Your task to perform on an android device: turn vacation reply on in the gmail app Image 0: 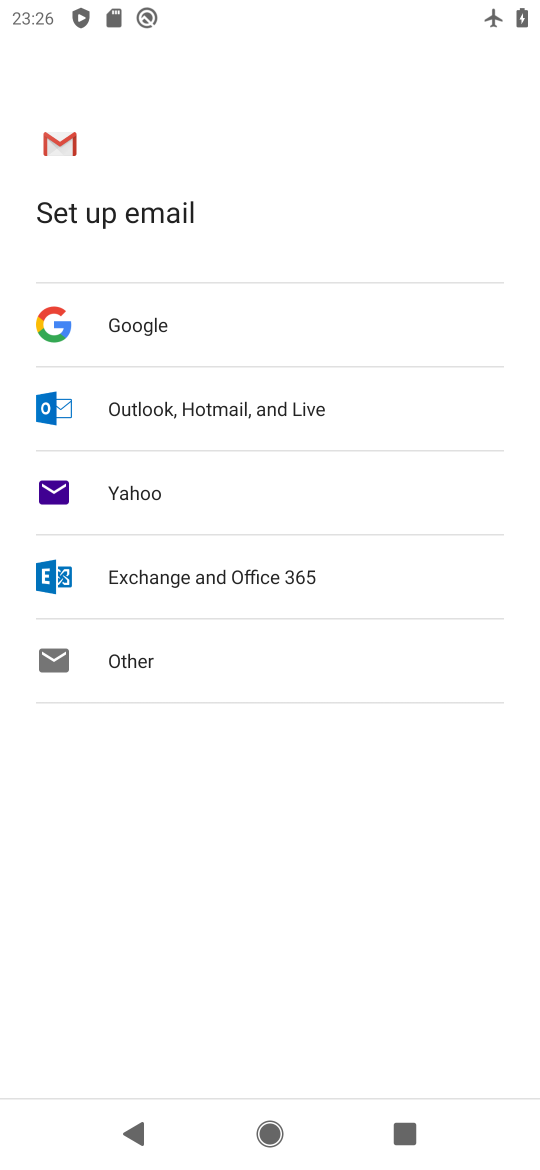
Step 0: press home button
Your task to perform on an android device: turn vacation reply on in the gmail app Image 1: 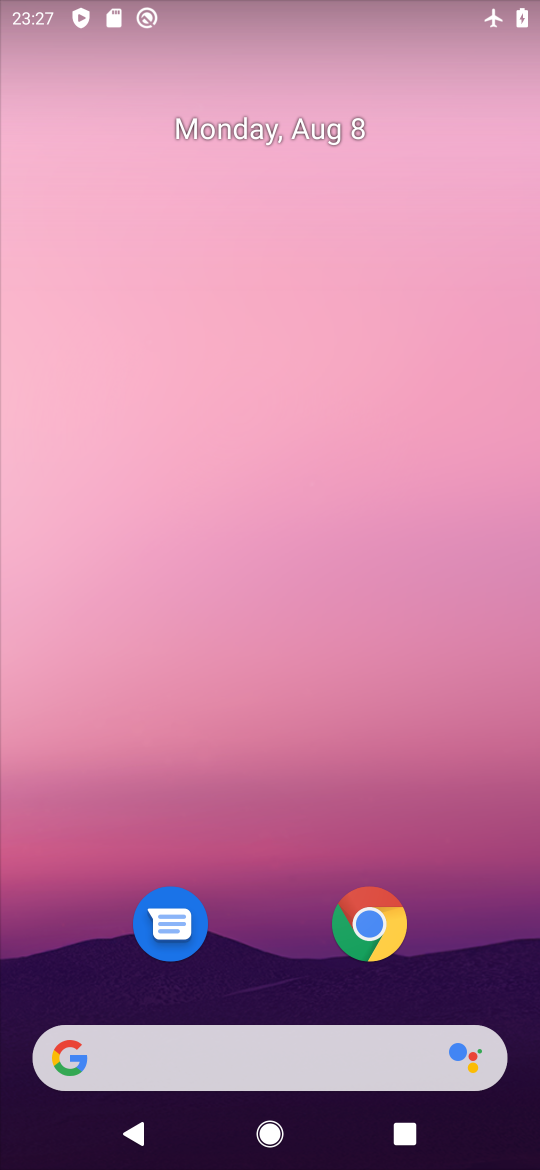
Step 1: drag from (247, 975) to (163, 1)
Your task to perform on an android device: turn vacation reply on in the gmail app Image 2: 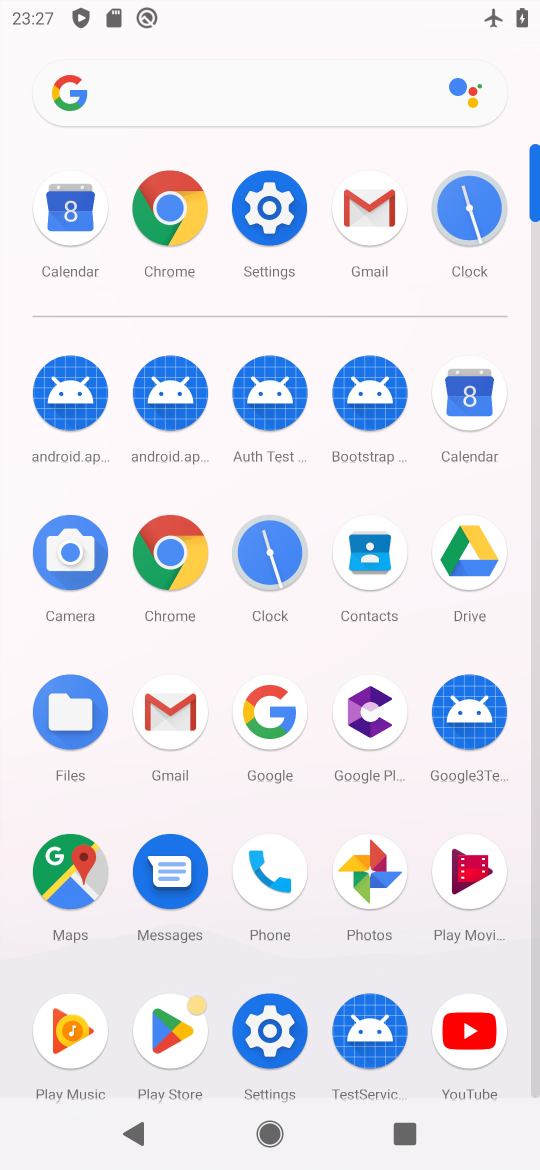
Step 2: click (191, 717)
Your task to perform on an android device: turn vacation reply on in the gmail app Image 3: 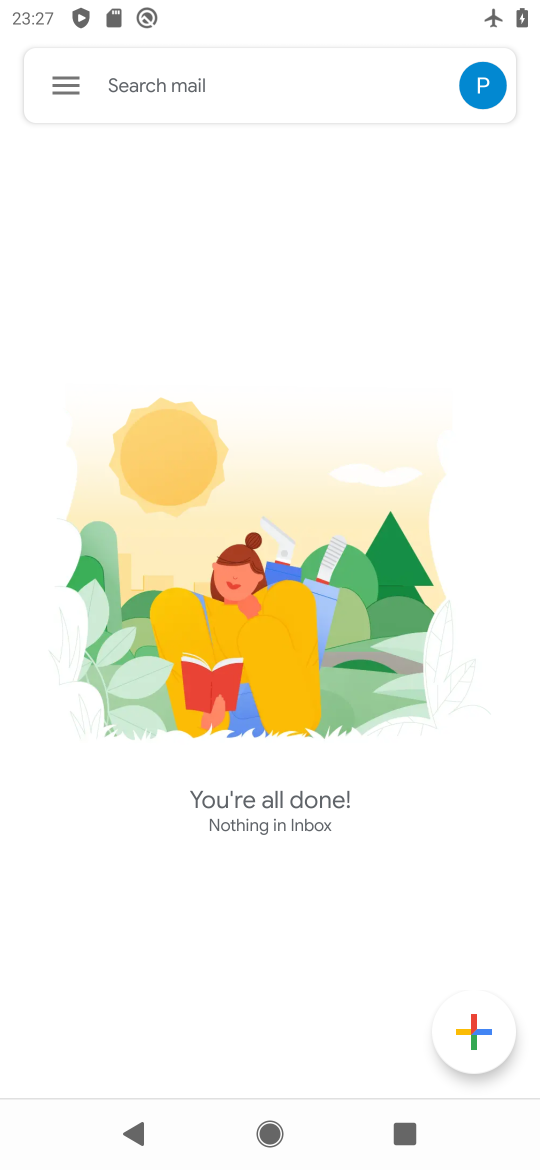
Step 3: click (56, 112)
Your task to perform on an android device: turn vacation reply on in the gmail app Image 4: 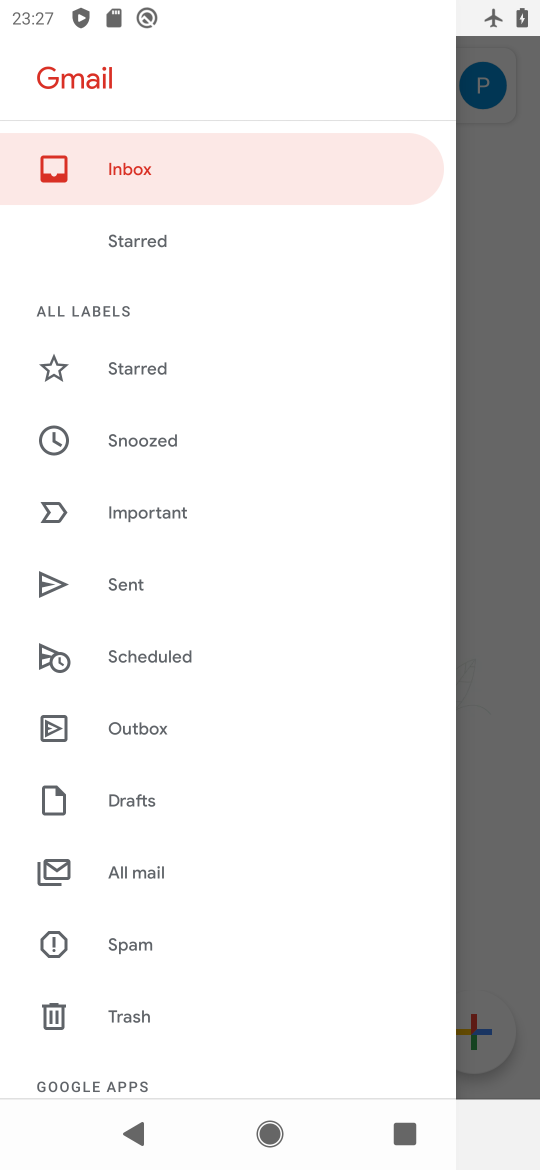
Step 4: drag from (133, 954) to (112, 162)
Your task to perform on an android device: turn vacation reply on in the gmail app Image 5: 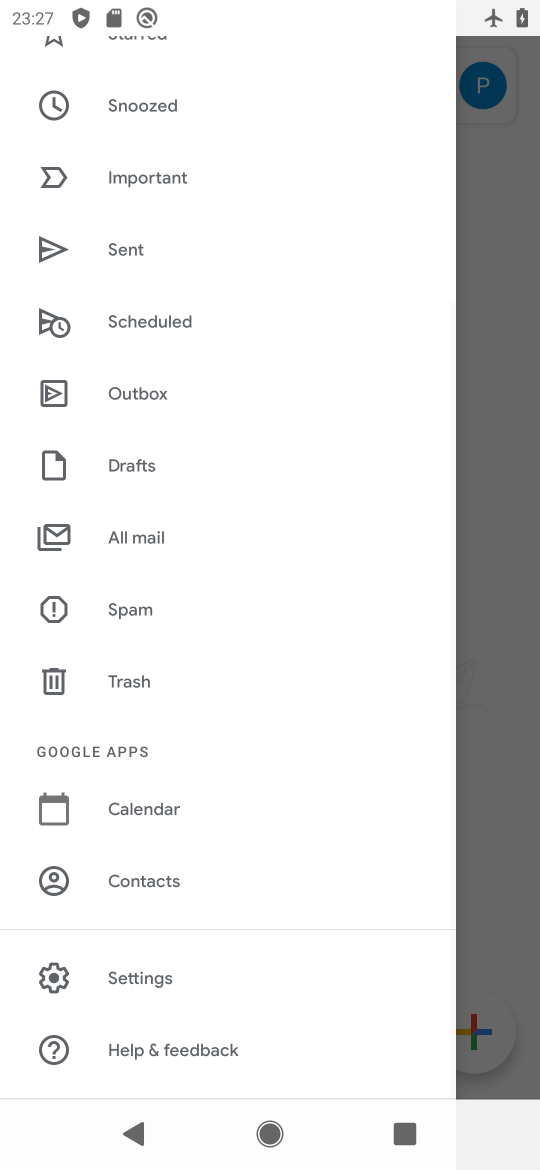
Step 5: click (124, 950)
Your task to perform on an android device: turn vacation reply on in the gmail app Image 6: 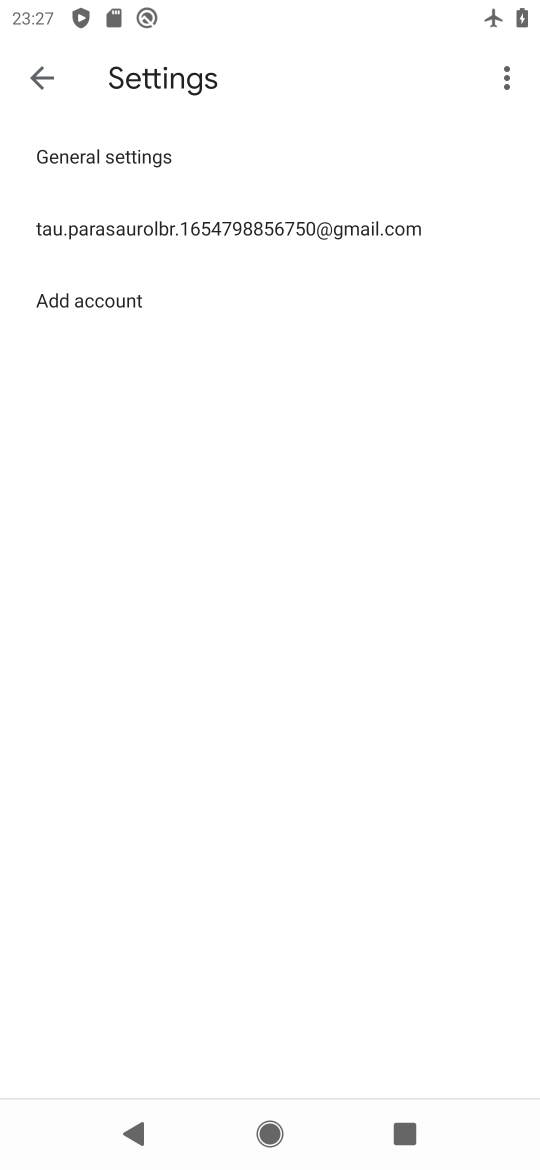
Step 6: click (98, 240)
Your task to perform on an android device: turn vacation reply on in the gmail app Image 7: 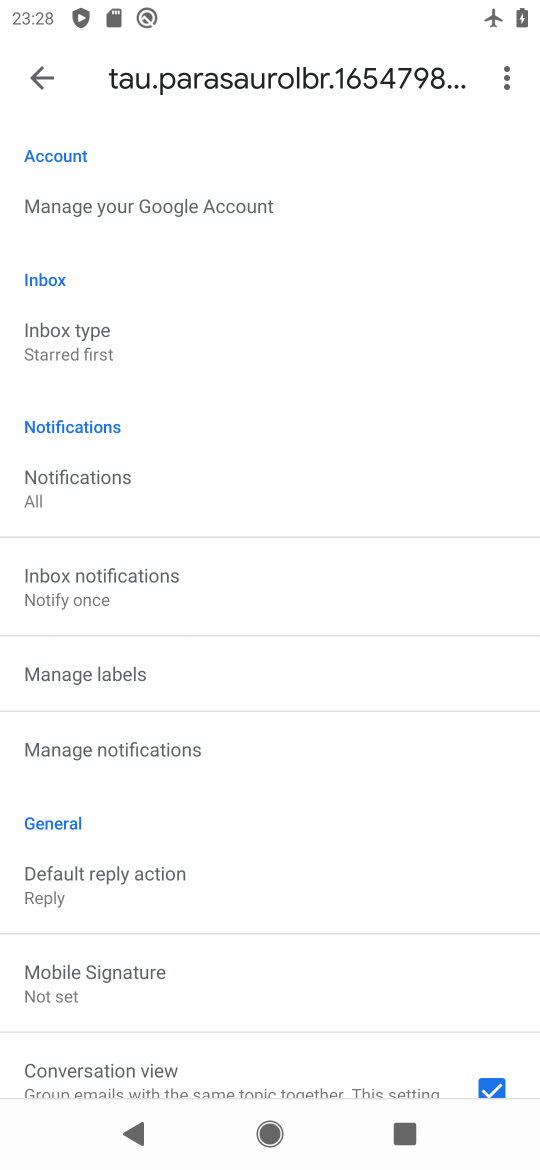
Step 7: click (98, 240)
Your task to perform on an android device: turn vacation reply on in the gmail app Image 8: 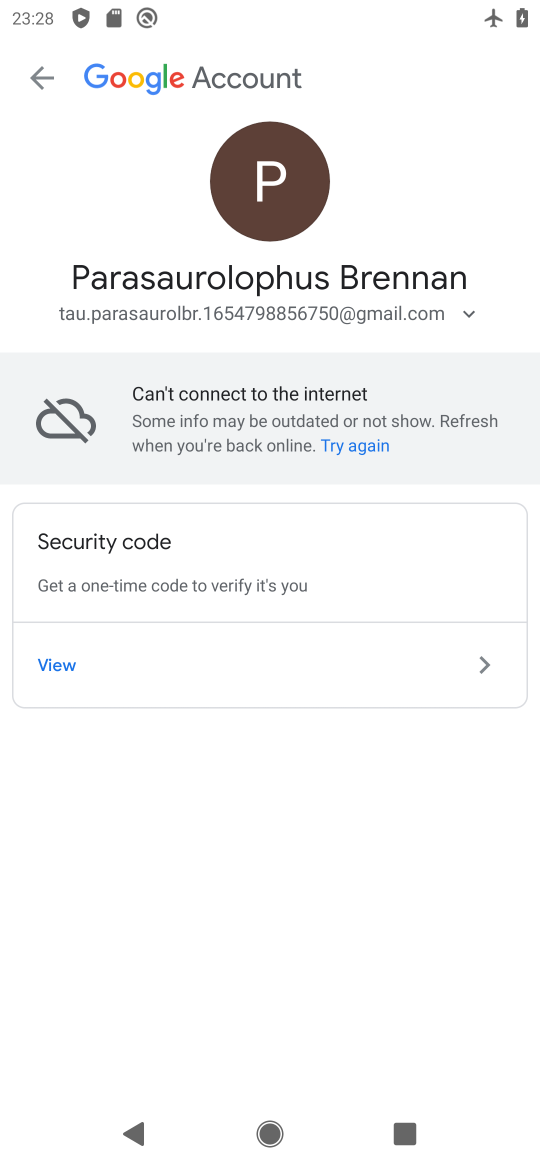
Step 8: click (35, 68)
Your task to perform on an android device: turn vacation reply on in the gmail app Image 9: 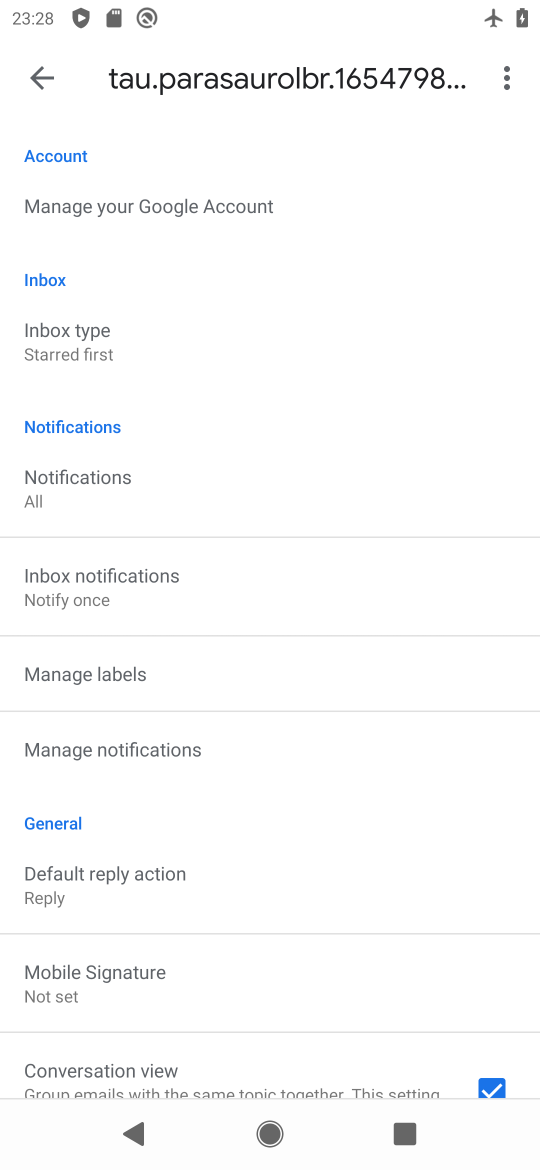
Step 9: drag from (155, 905) to (96, 544)
Your task to perform on an android device: turn vacation reply on in the gmail app Image 10: 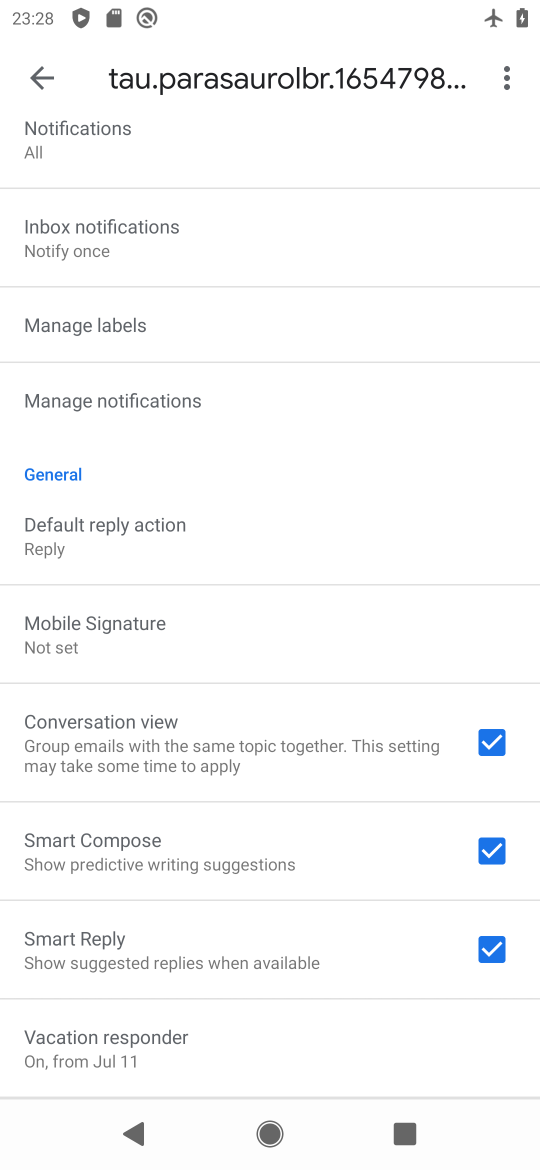
Step 10: click (211, 1031)
Your task to perform on an android device: turn vacation reply on in the gmail app Image 11: 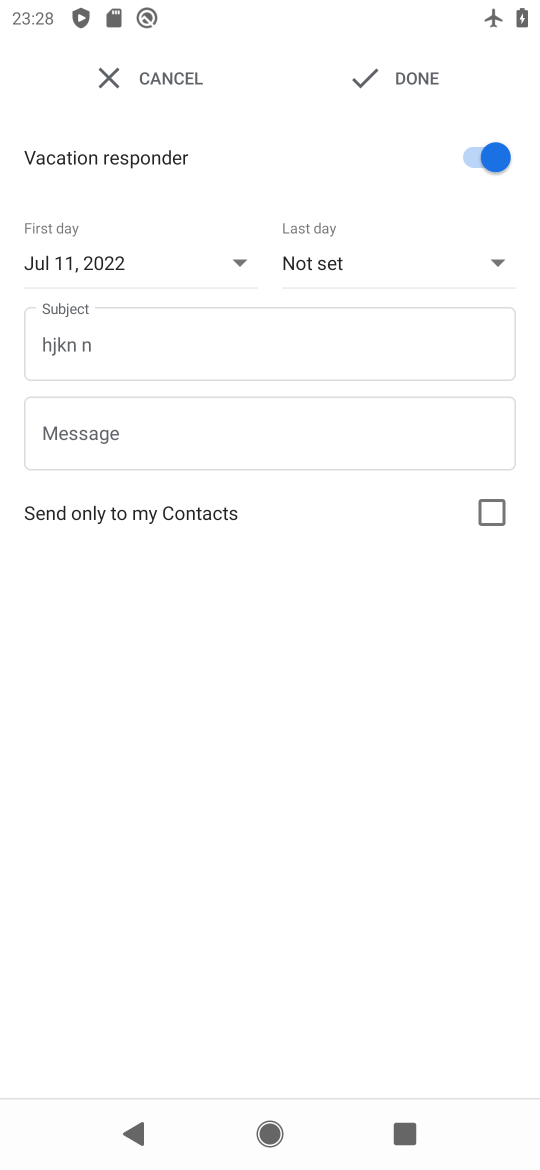
Step 11: click (417, 79)
Your task to perform on an android device: turn vacation reply on in the gmail app Image 12: 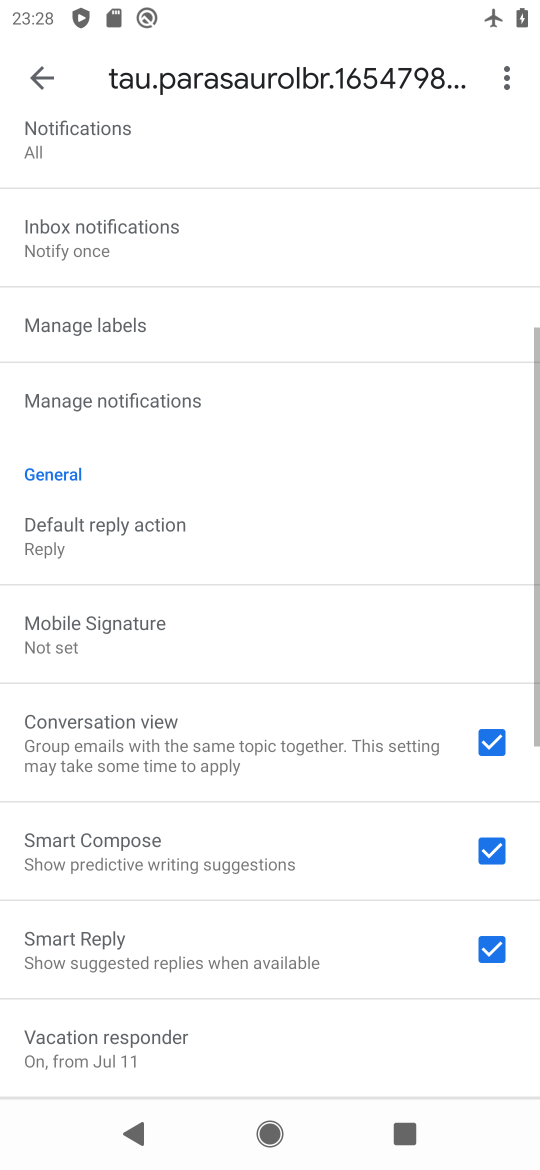
Step 12: task complete